Your task to perform on an android device: Open the calendar app, open the side menu, and click the "Day" option Image 0: 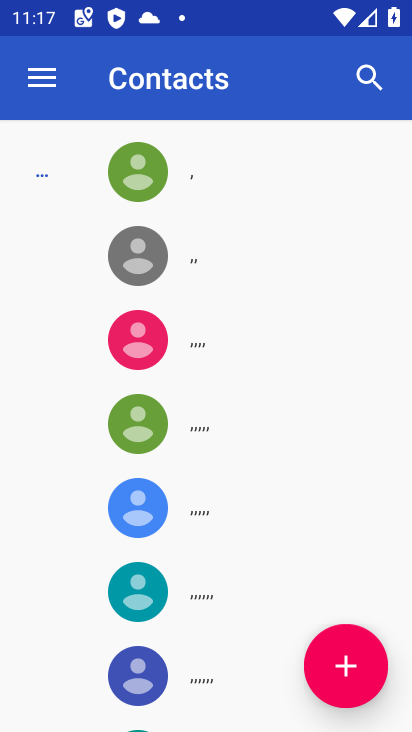
Step 0: press home button
Your task to perform on an android device: Open the calendar app, open the side menu, and click the "Day" option Image 1: 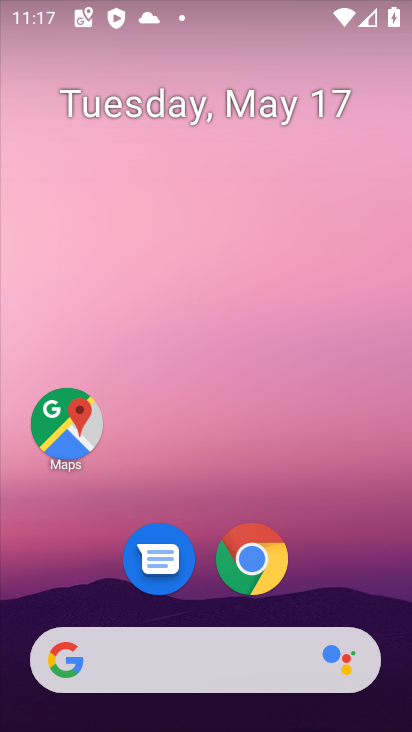
Step 1: drag from (86, 720) to (192, 217)
Your task to perform on an android device: Open the calendar app, open the side menu, and click the "Day" option Image 2: 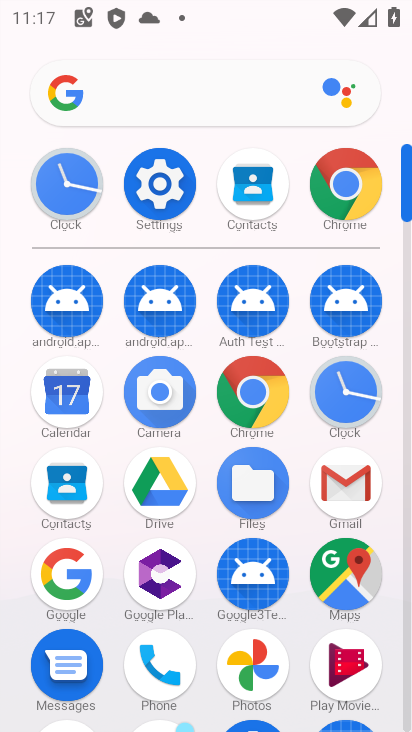
Step 2: click (68, 400)
Your task to perform on an android device: Open the calendar app, open the side menu, and click the "Day" option Image 3: 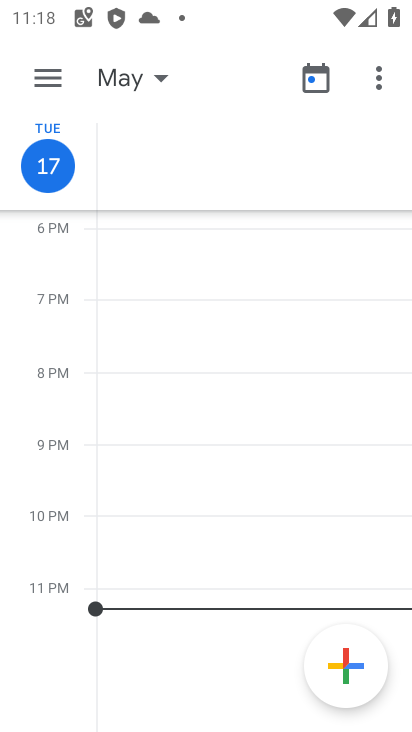
Step 3: click (40, 69)
Your task to perform on an android device: Open the calendar app, open the side menu, and click the "Day" option Image 4: 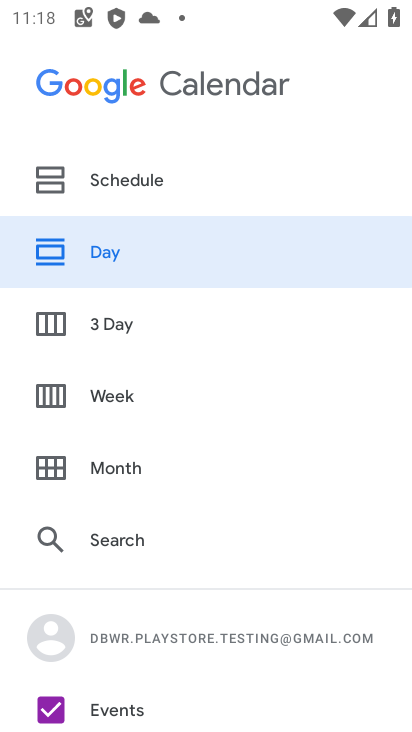
Step 4: task complete